Your task to perform on an android device: change the clock style Image 0: 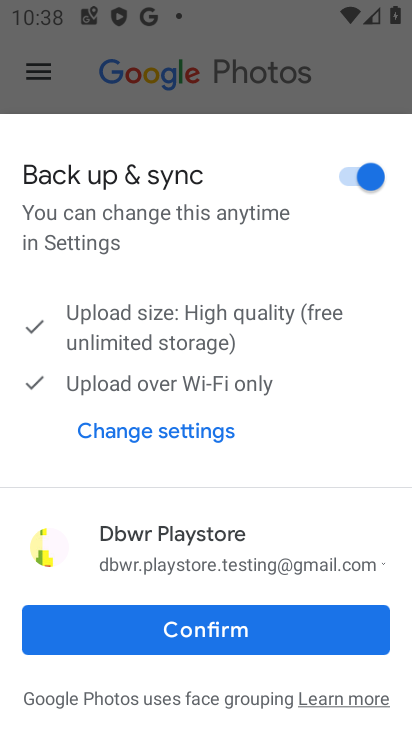
Step 0: press home button
Your task to perform on an android device: change the clock style Image 1: 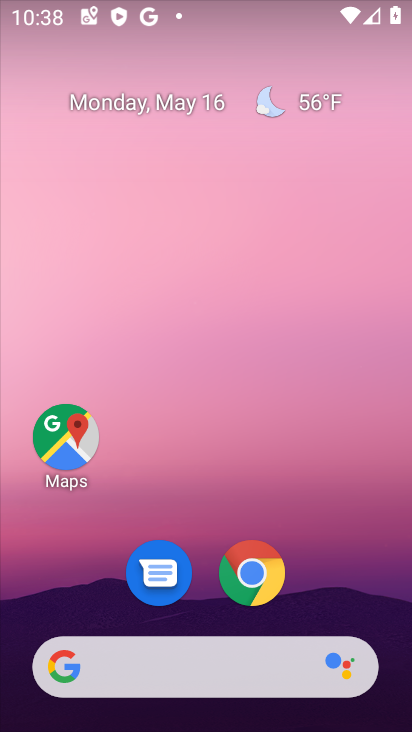
Step 1: drag from (366, 596) to (291, 210)
Your task to perform on an android device: change the clock style Image 2: 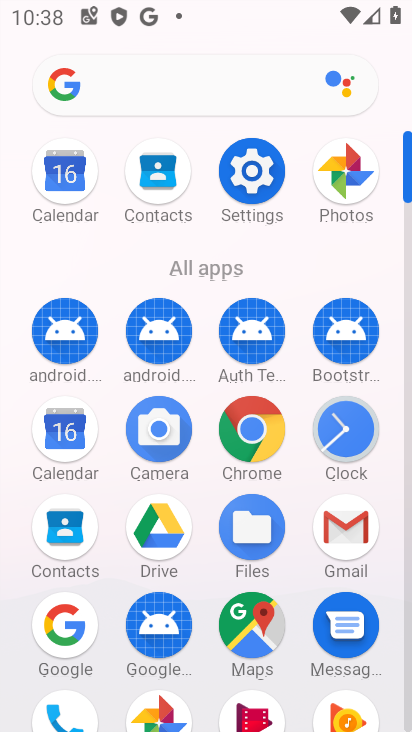
Step 2: click (358, 461)
Your task to perform on an android device: change the clock style Image 3: 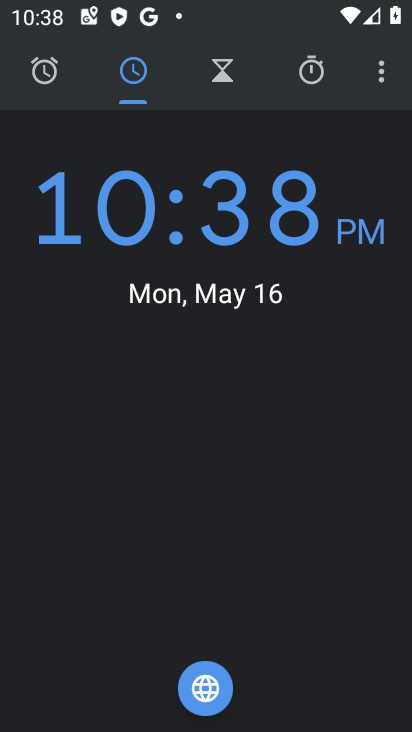
Step 3: click (378, 85)
Your task to perform on an android device: change the clock style Image 4: 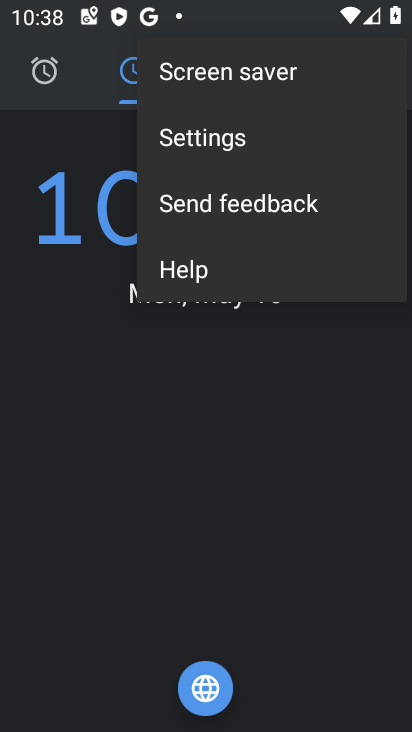
Step 4: click (217, 154)
Your task to perform on an android device: change the clock style Image 5: 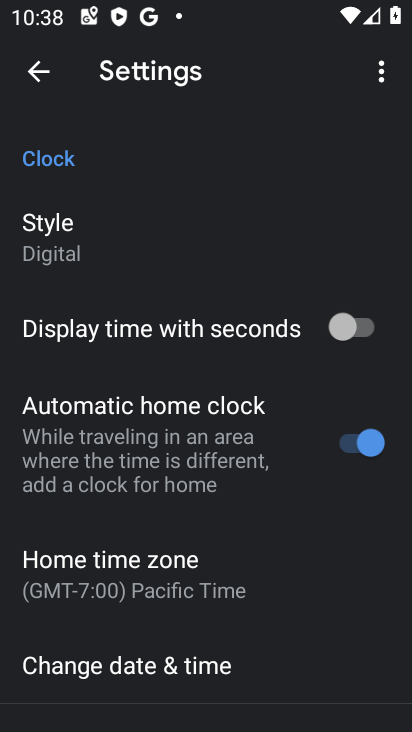
Step 5: click (211, 229)
Your task to perform on an android device: change the clock style Image 6: 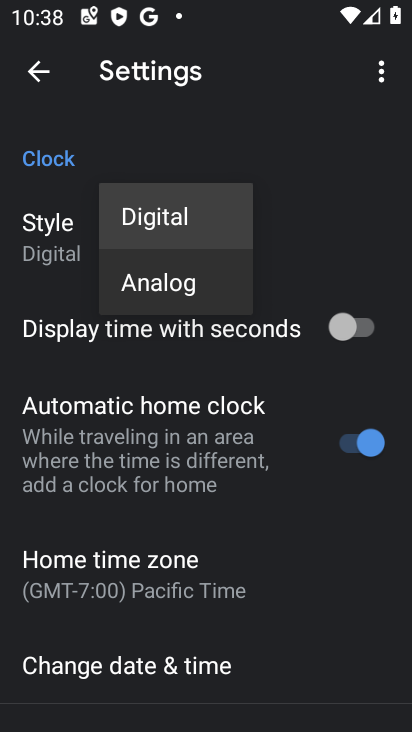
Step 6: click (198, 281)
Your task to perform on an android device: change the clock style Image 7: 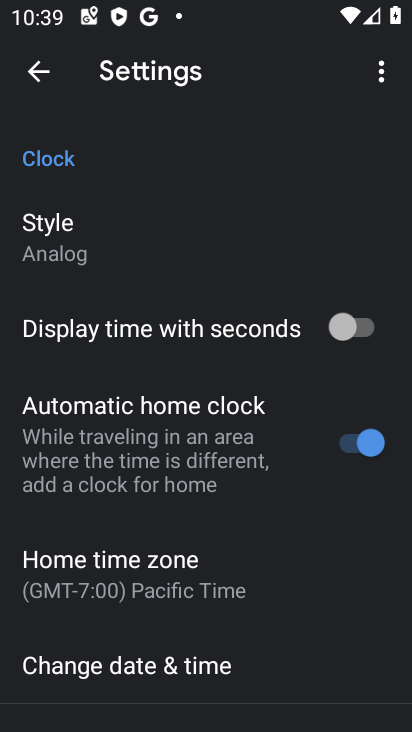
Step 7: task complete